Your task to perform on an android device: Go to Wikipedia Image 0: 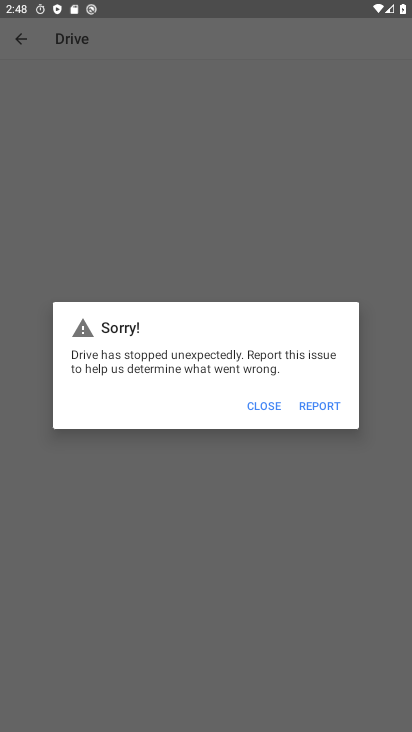
Step 0: press home button
Your task to perform on an android device: Go to Wikipedia Image 1: 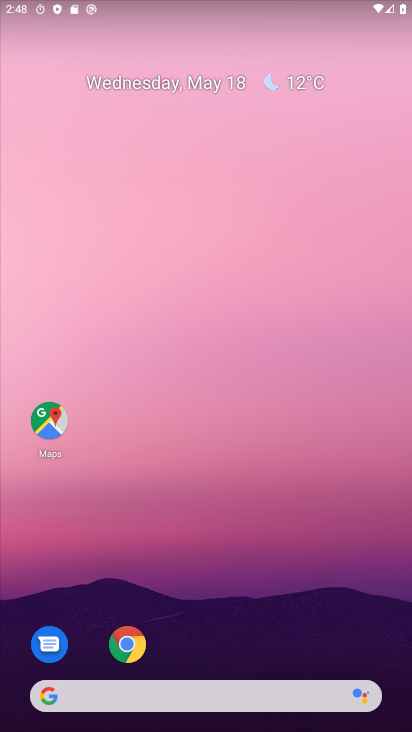
Step 1: drag from (401, 679) to (399, 281)
Your task to perform on an android device: Go to Wikipedia Image 2: 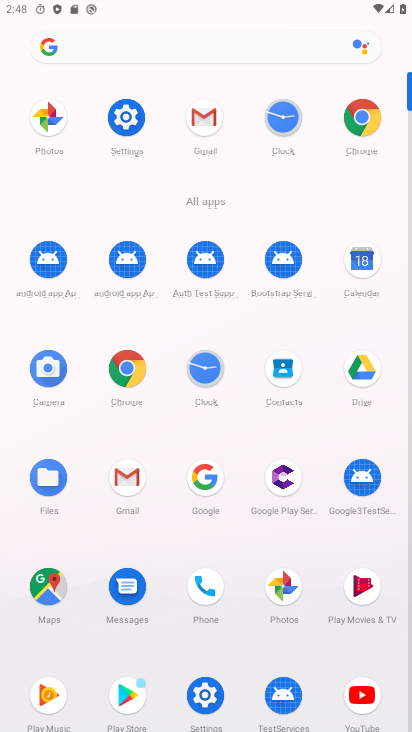
Step 2: click (367, 122)
Your task to perform on an android device: Go to Wikipedia Image 3: 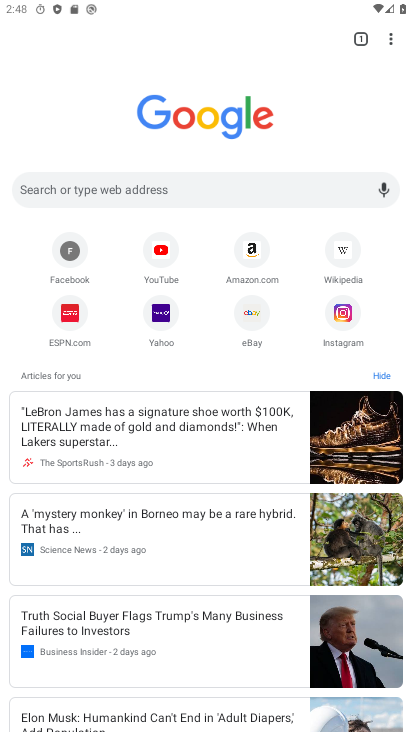
Step 3: click (141, 189)
Your task to perform on an android device: Go to Wikipedia Image 4: 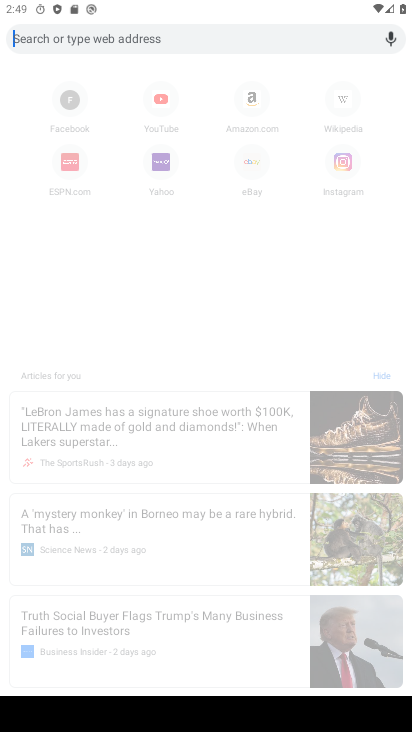
Step 4: type "Wikipedia"
Your task to perform on an android device: Go to Wikipedia Image 5: 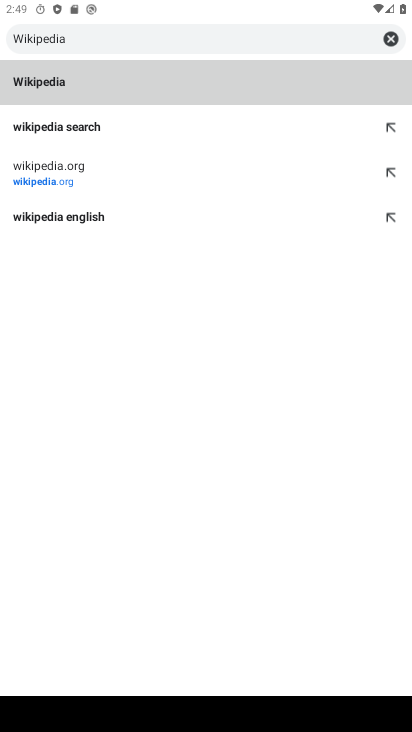
Step 5: click (62, 85)
Your task to perform on an android device: Go to Wikipedia Image 6: 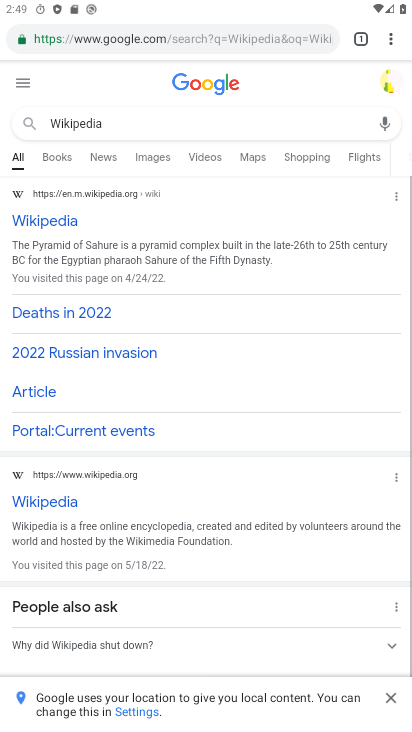
Step 6: task complete